Your task to perform on an android device: turn on priority inbox in the gmail app Image 0: 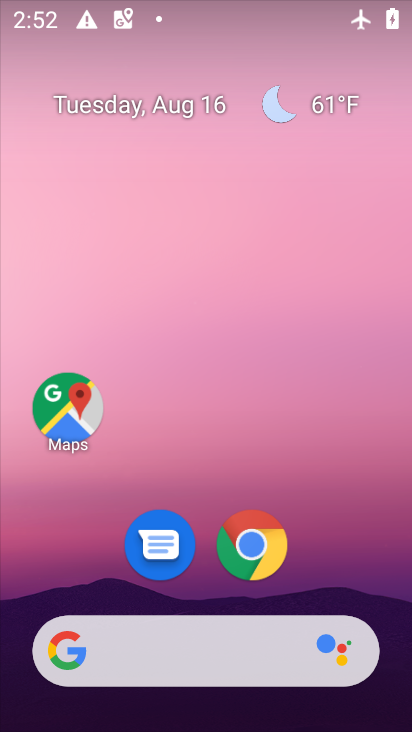
Step 0: drag from (197, 625) to (185, 289)
Your task to perform on an android device: turn on priority inbox in the gmail app Image 1: 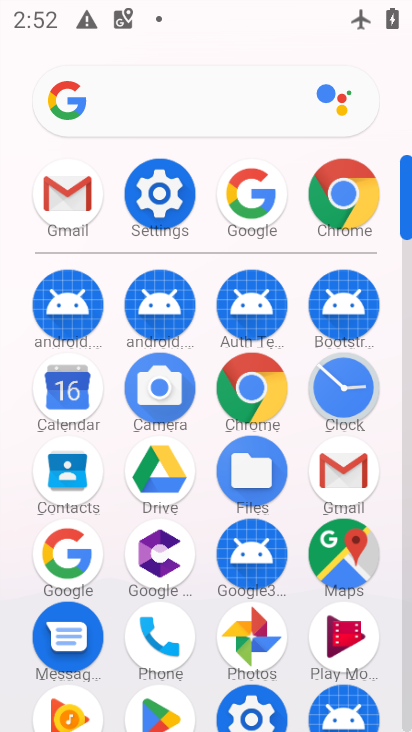
Step 1: click (353, 462)
Your task to perform on an android device: turn on priority inbox in the gmail app Image 2: 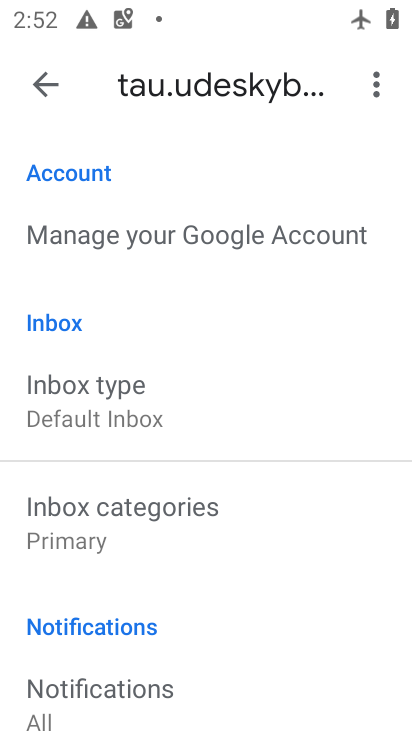
Step 2: click (135, 409)
Your task to perform on an android device: turn on priority inbox in the gmail app Image 3: 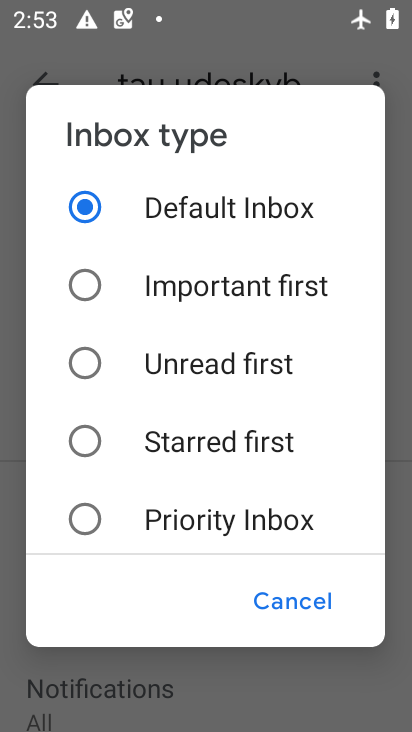
Step 3: click (153, 515)
Your task to perform on an android device: turn on priority inbox in the gmail app Image 4: 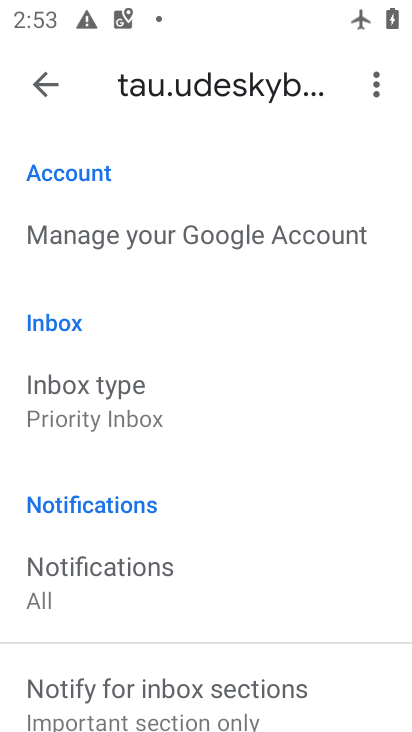
Step 4: task complete